Your task to perform on an android device: toggle airplane mode Image 0: 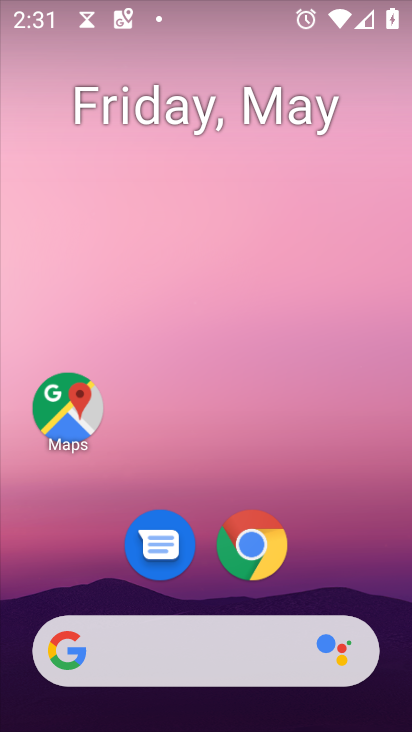
Step 0: drag from (356, 553) to (284, 7)
Your task to perform on an android device: toggle airplane mode Image 1: 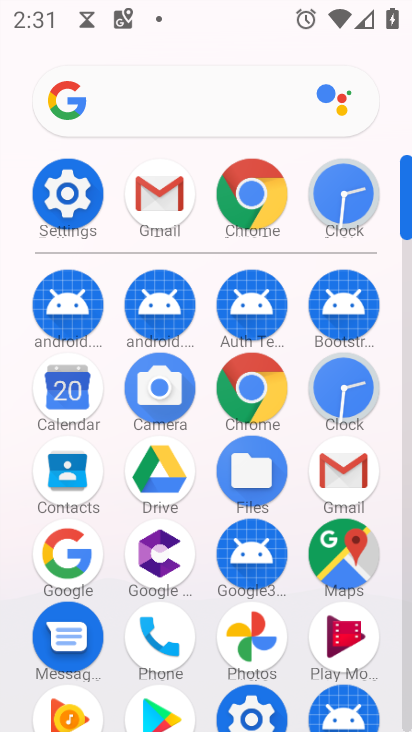
Step 1: click (74, 202)
Your task to perform on an android device: toggle airplane mode Image 2: 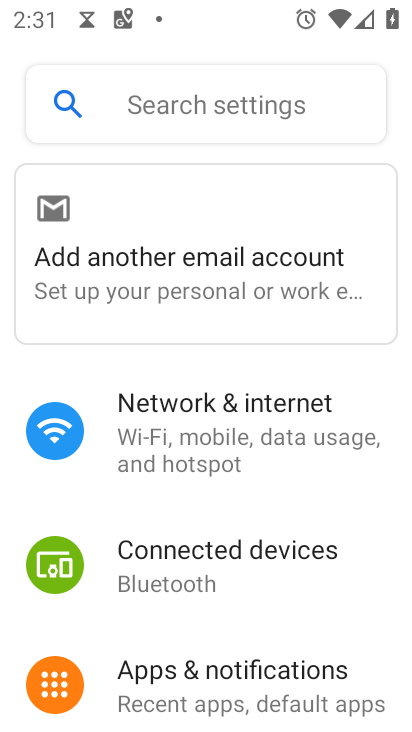
Step 2: click (232, 417)
Your task to perform on an android device: toggle airplane mode Image 3: 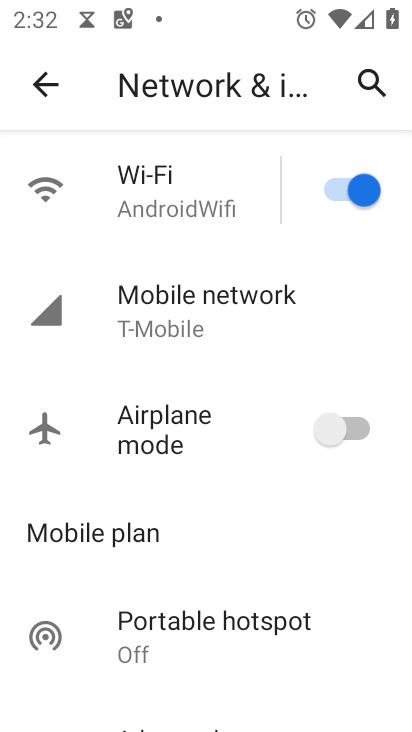
Step 3: click (357, 425)
Your task to perform on an android device: toggle airplane mode Image 4: 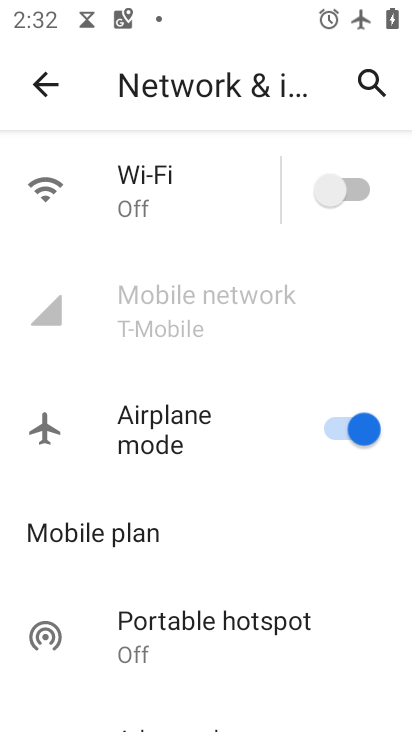
Step 4: task complete